Your task to perform on an android device: Open settings on Google Maps Image 0: 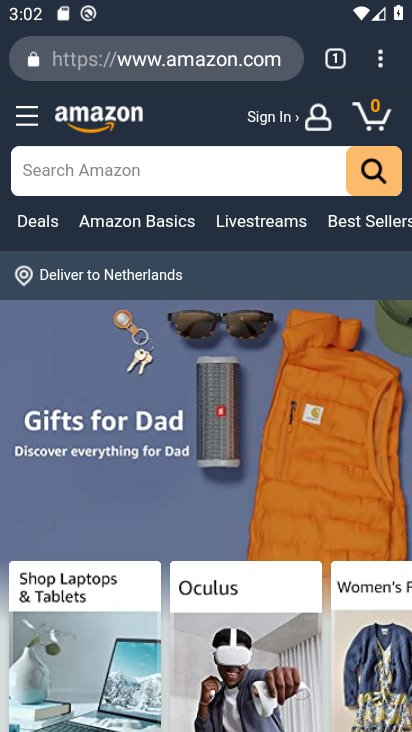
Step 0: press home button
Your task to perform on an android device: Open settings on Google Maps Image 1: 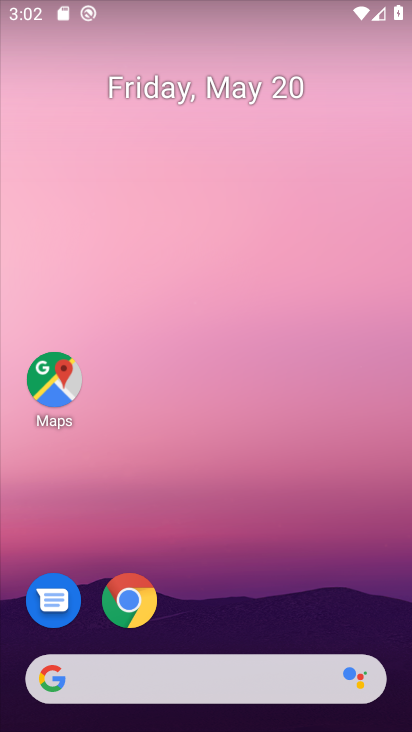
Step 1: drag from (374, 611) to (361, 190)
Your task to perform on an android device: Open settings on Google Maps Image 2: 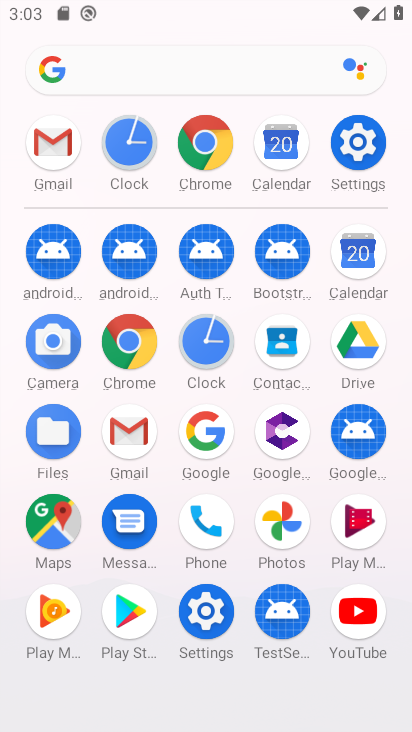
Step 2: click (52, 530)
Your task to perform on an android device: Open settings on Google Maps Image 3: 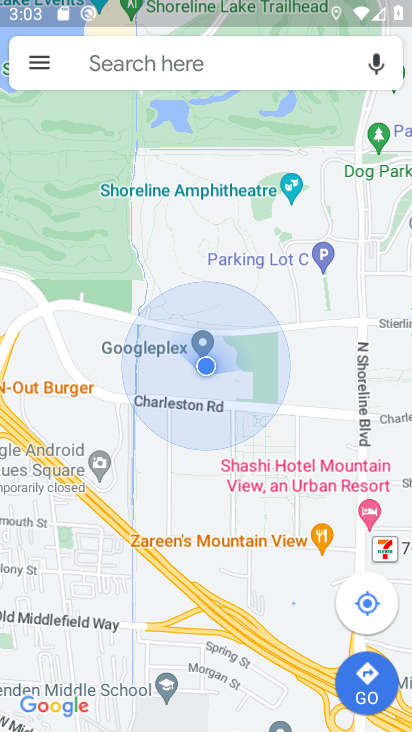
Step 3: click (35, 60)
Your task to perform on an android device: Open settings on Google Maps Image 4: 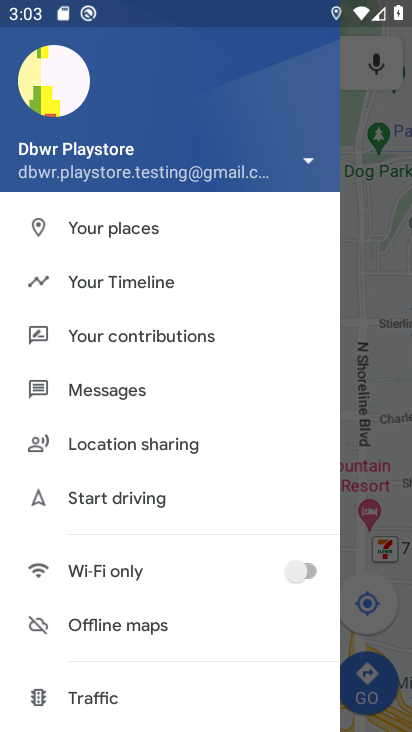
Step 4: drag from (213, 603) to (221, 484)
Your task to perform on an android device: Open settings on Google Maps Image 5: 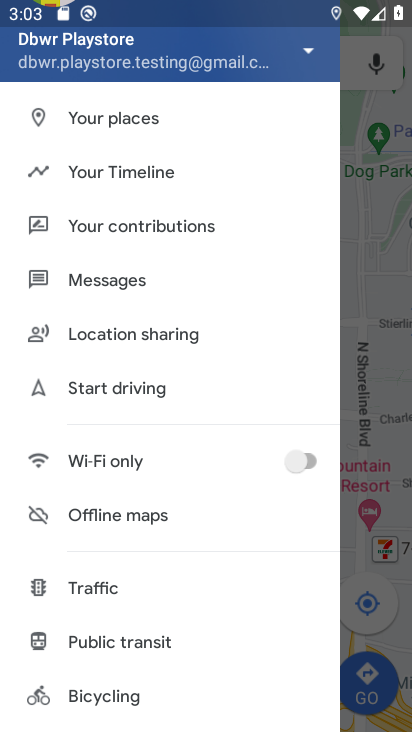
Step 5: drag from (250, 649) to (250, 515)
Your task to perform on an android device: Open settings on Google Maps Image 6: 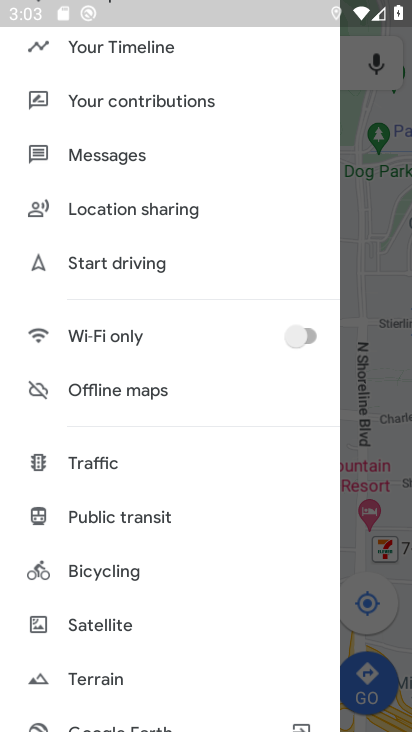
Step 6: drag from (233, 628) to (225, 530)
Your task to perform on an android device: Open settings on Google Maps Image 7: 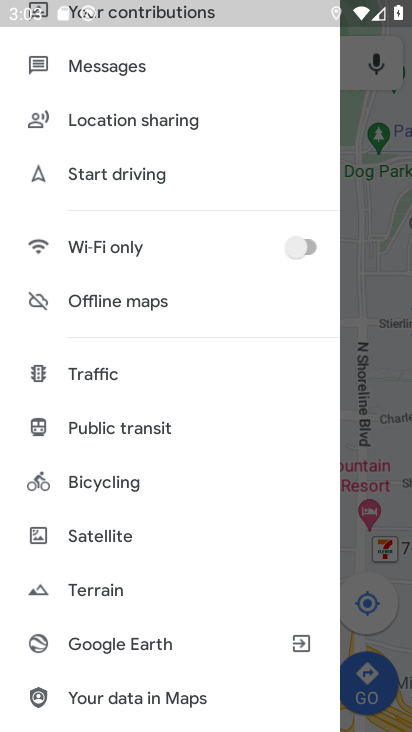
Step 7: drag from (234, 652) to (226, 510)
Your task to perform on an android device: Open settings on Google Maps Image 8: 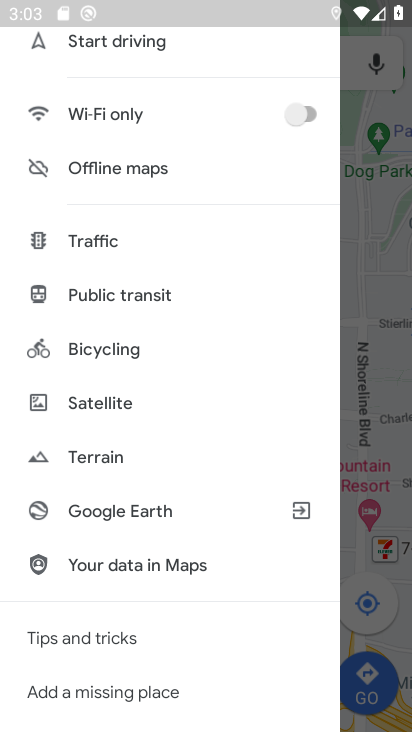
Step 8: drag from (236, 663) to (224, 512)
Your task to perform on an android device: Open settings on Google Maps Image 9: 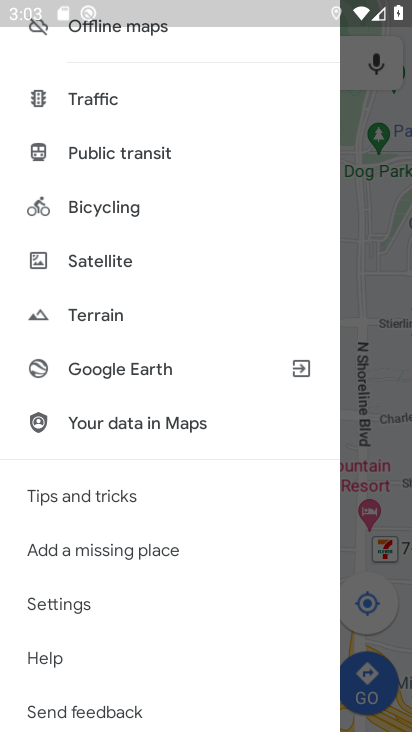
Step 9: click (83, 611)
Your task to perform on an android device: Open settings on Google Maps Image 10: 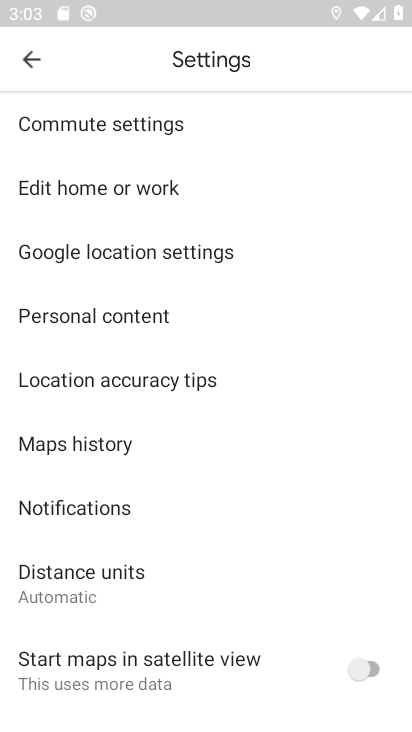
Step 10: task complete